Your task to perform on an android device: Open Google Chrome and open the bookmarks view Image 0: 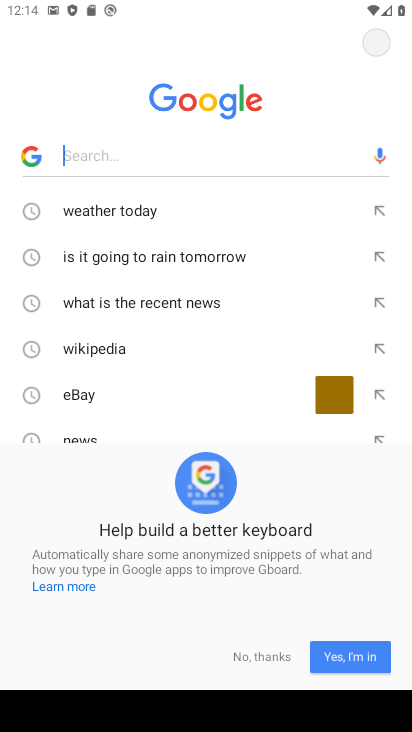
Step 0: press home button
Your task to perform on an android device: Open Google Chrome and open the bookmarks view Image 1: 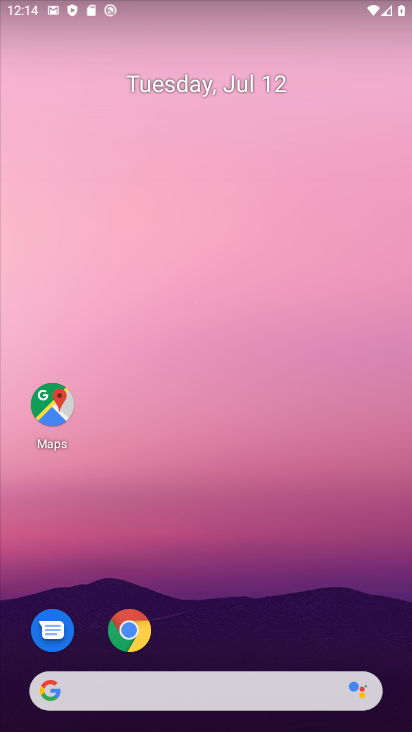
Step 1: click (126, 613)
Your task to perform on an android device: Open Google Chrome and open the bookmarks view Image 2: 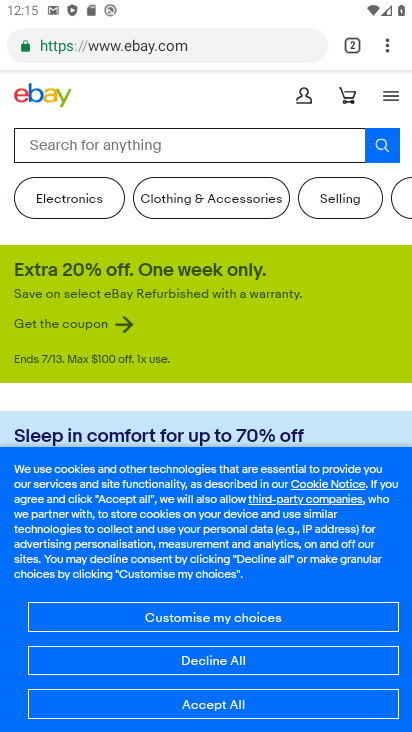
Step 2: task complete